Your task to perform on an android device: open app "Paramount+ | Peak Streaming" (install if not already installed) Image 0: 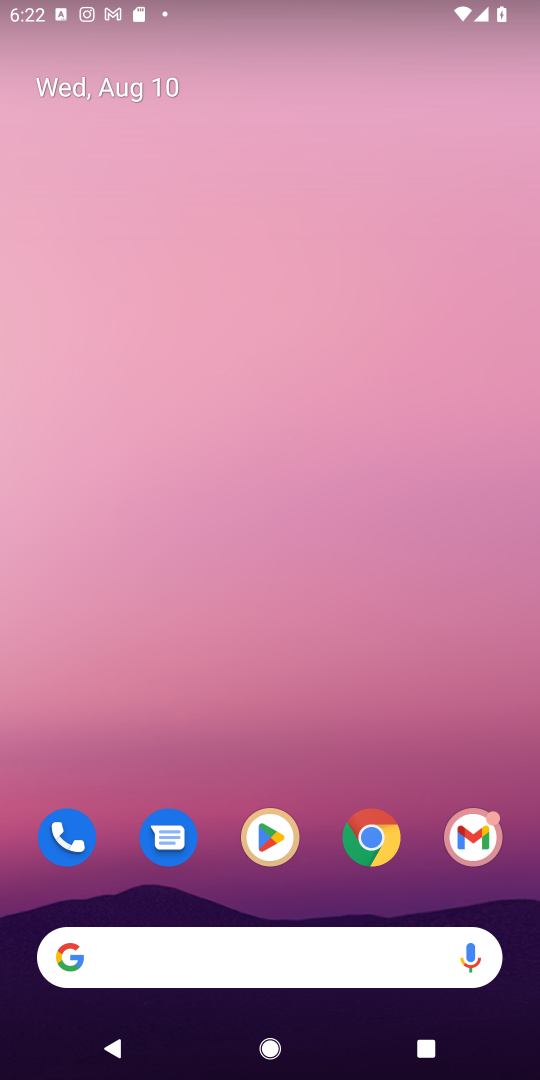
Step 0: click (265, 837)
Your task to perform on an android device: open app "Paramount+ | Peak Streaming" (install if not already installed) Image 1: 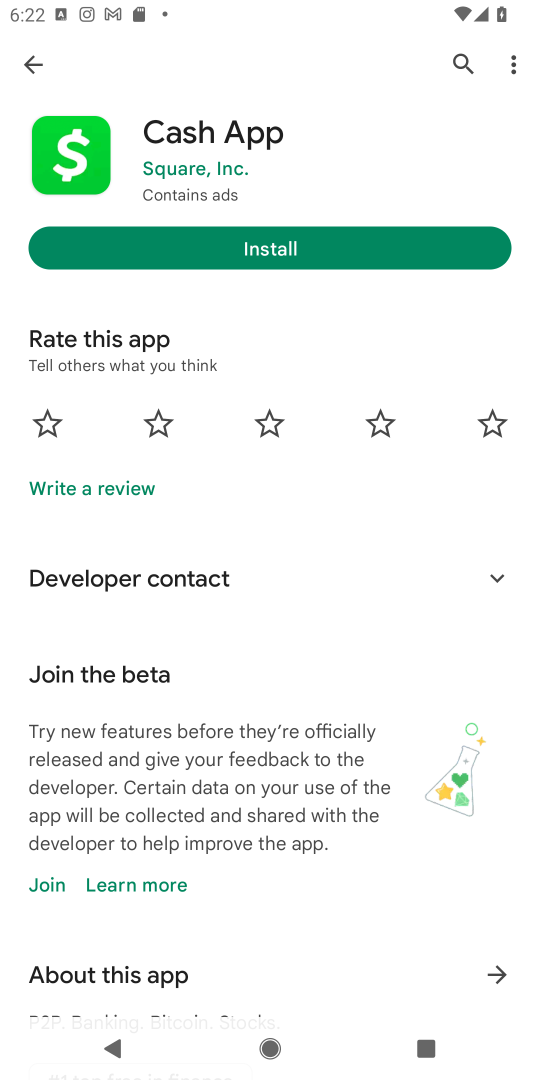
Step 1: click (458, 60)
Your task to perform on an android device: open app "Paramount+ | Peak Streaming" (install if not already installed) Image 2: 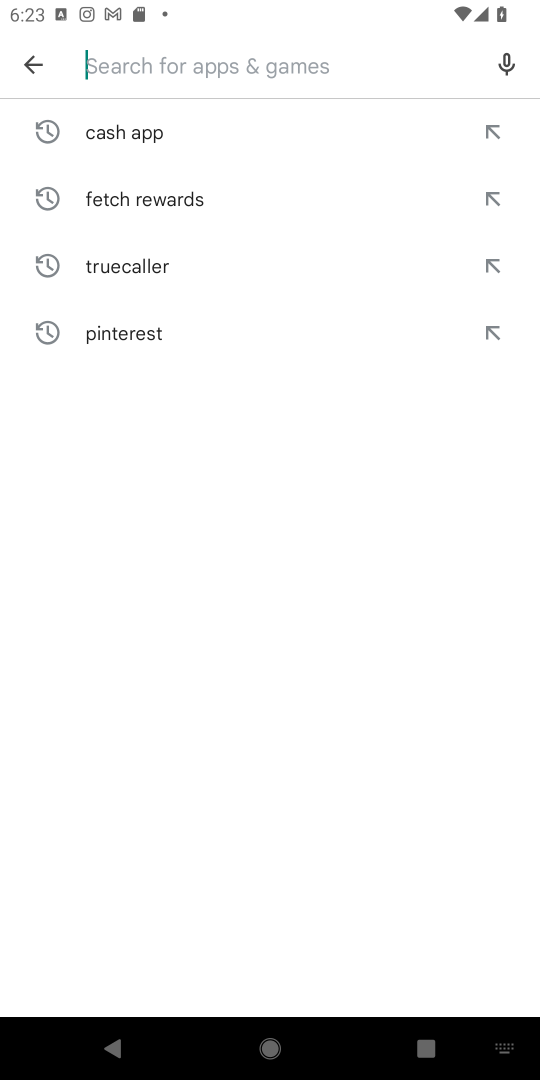
Step 2: type "Paramount+ | Peak Streaming"
Your task to perform on an android device: open app "Paramount+ | Peak Streaming" (install if not already installed) Image 3: 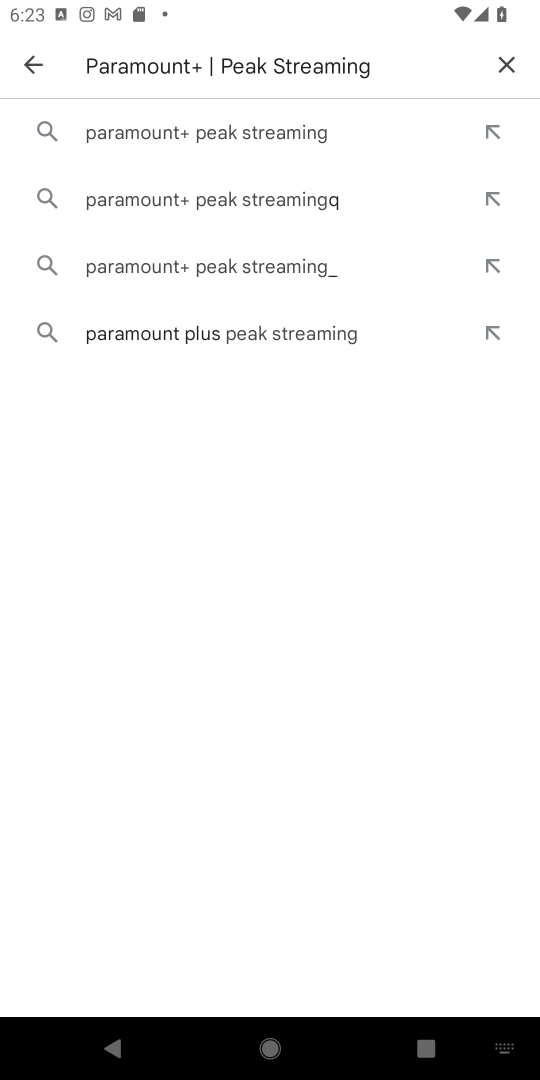
Step 3: click (187, 137)
Your task to perform on an android device: open app "Paramount+ | Peak Streaming" (install if not already installed) Image 4: 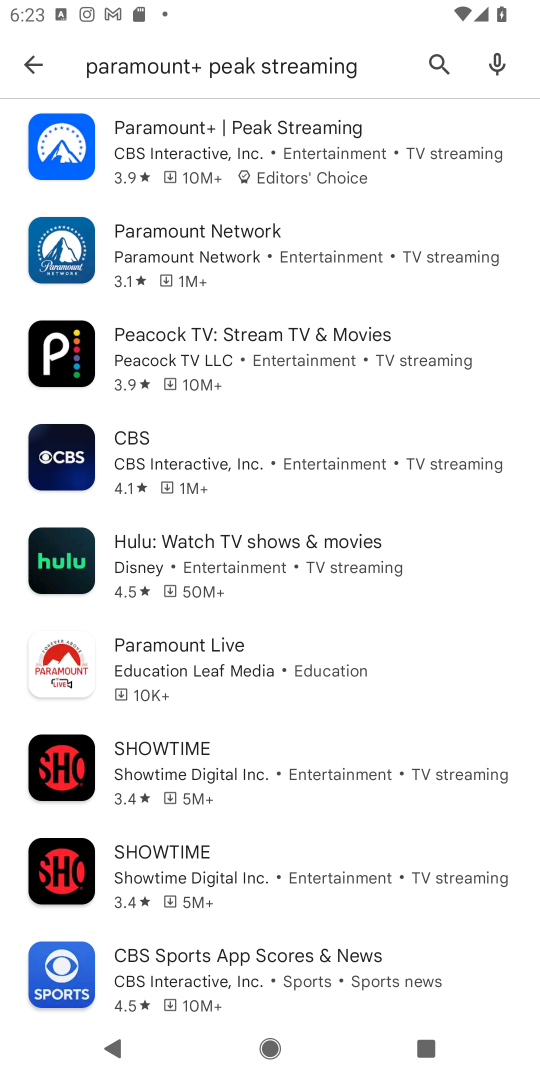
Step 4: click (202, 165)
Your task to perform on an android device: open app "Paramount+ | Peak Streaming" (install if not already installed) Image 5: 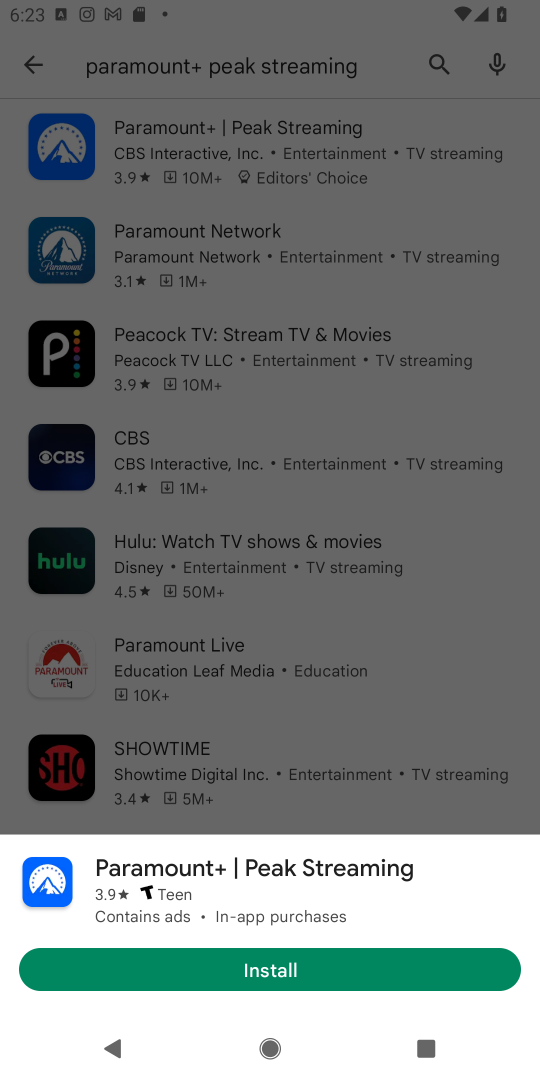
Step 5: click (257, 964)
Your task to perform on an android device: open app "Paramount+ | Peak Streaming" (install if not already installed) Image 6: 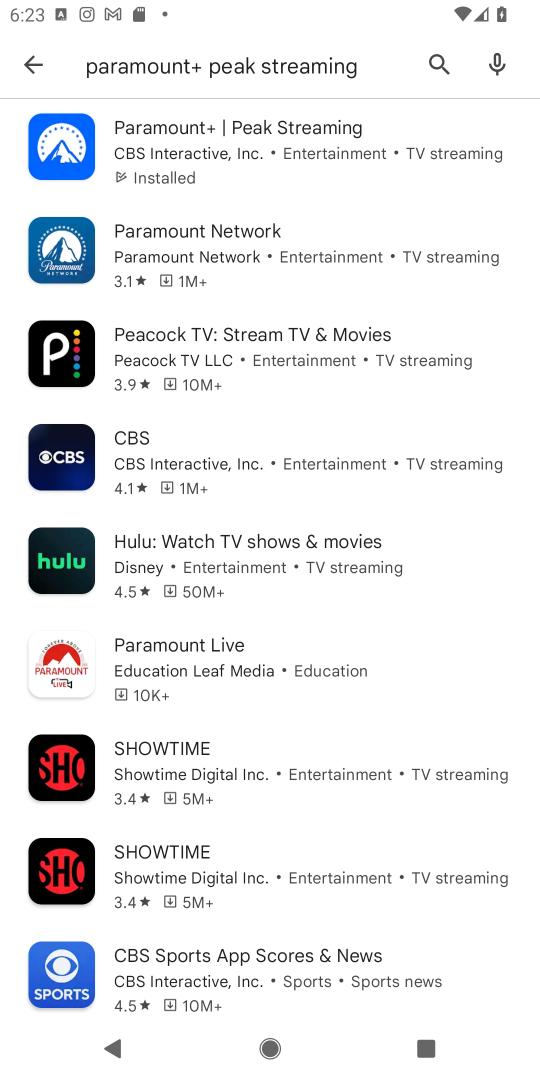
Step 6: click (208, 157)
Your task to perform on an android device: open app "Paramount+ | Peak Streaming" (install if not already installed) Image 7: 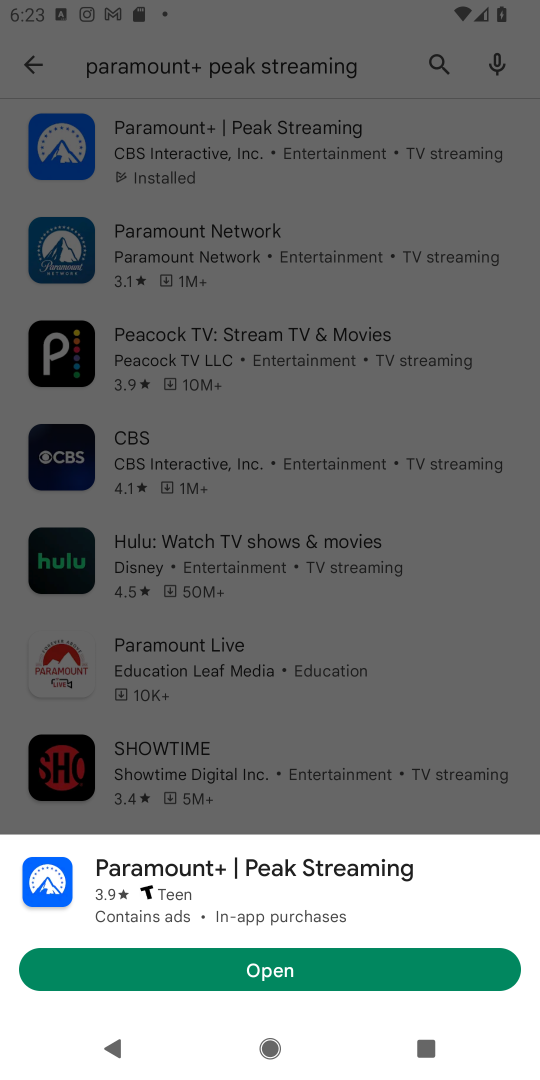
Step 7: click (259, 973)
Your task to perform on an android device: open app "Paramount+ | Peak Streaming" (install if not already installed) Image 8: 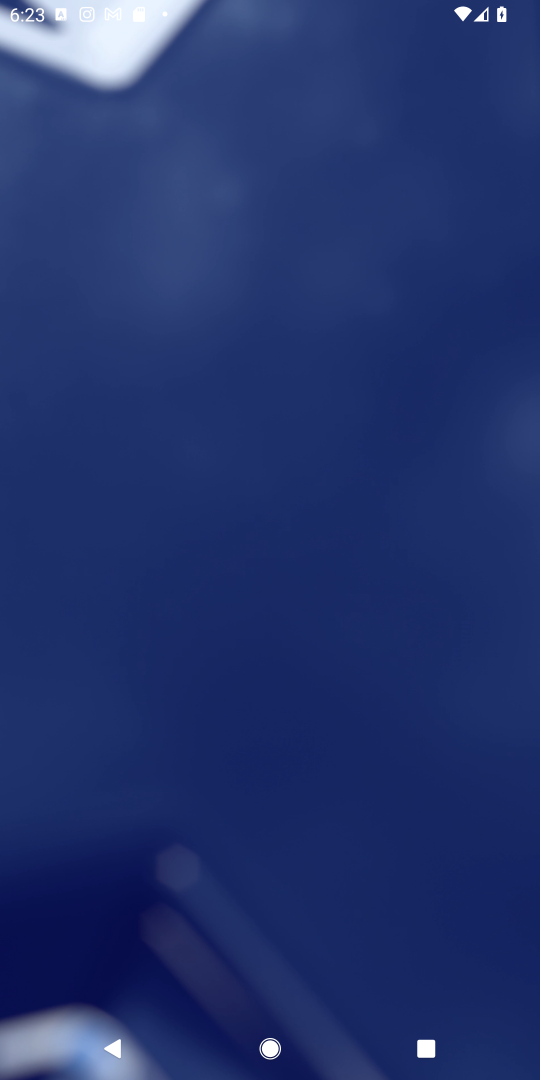
Step 8: task complete